Your task to perform on an android device: toggle location history Image 0: 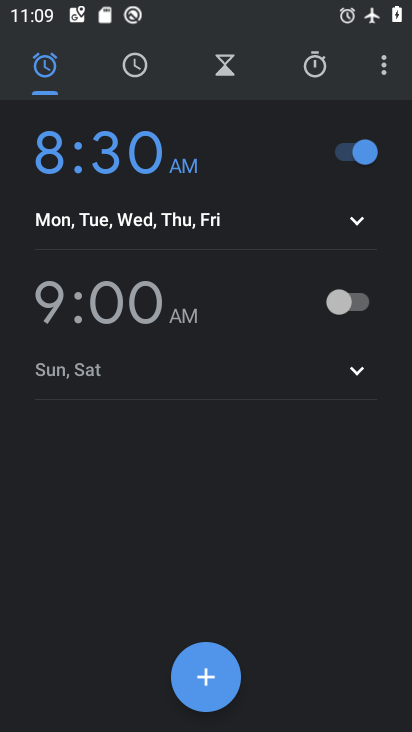
Step 0: press home button
Your task to perform on an android device: toggle location history Image 1: 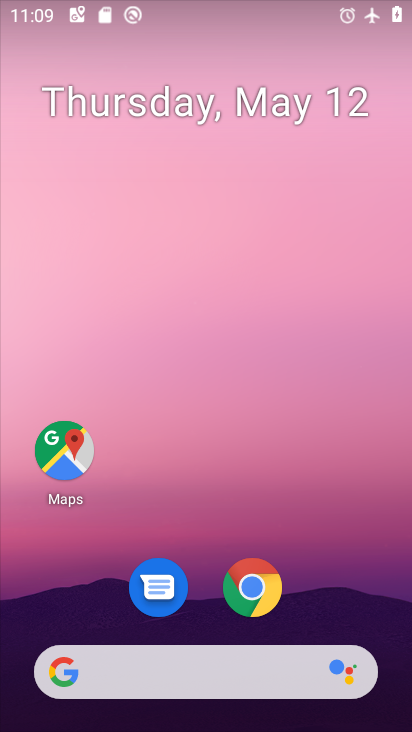
Step 1: drag from (366, 595) to (10, 0)
Your task to perform on an android device: toggle location history Image 2: 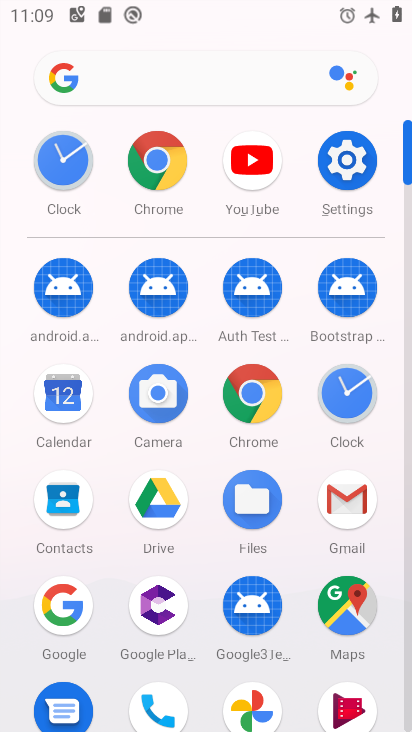
Step 2: click (366, 168)
Your task to perform on an android device: toggle location history Image 3: 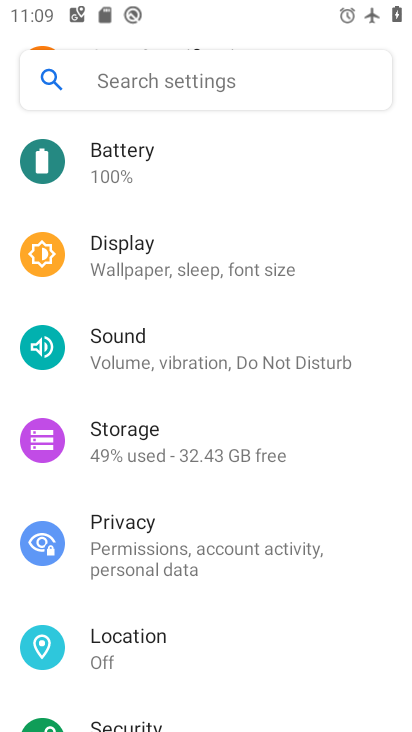
Step 3: click (157, 627)
Your task to perform on an android device: toggle location history Image 4: 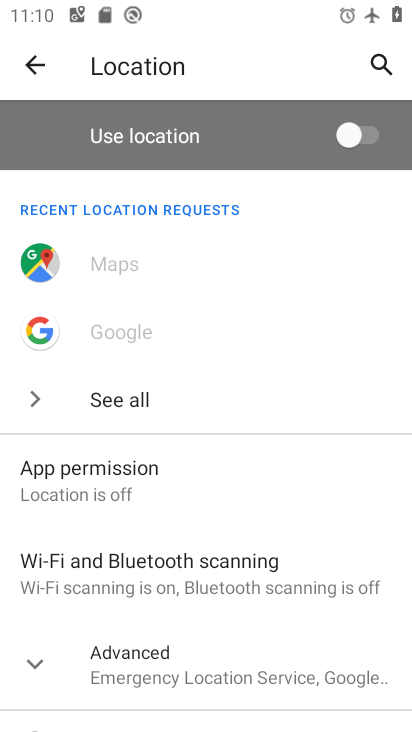
Step 4: drag from (196, 649) to (163, 259)
Your task to perform on an android device: toggle location history Image 5: 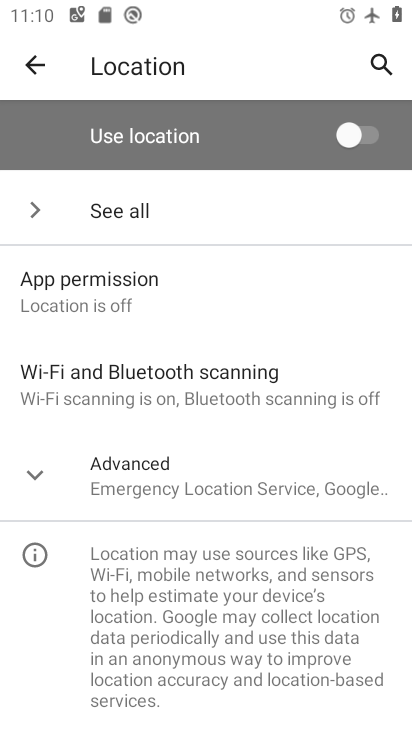
Step 5: click (28, 475)
Your task to perform on an android device: toggle location history Image 6: 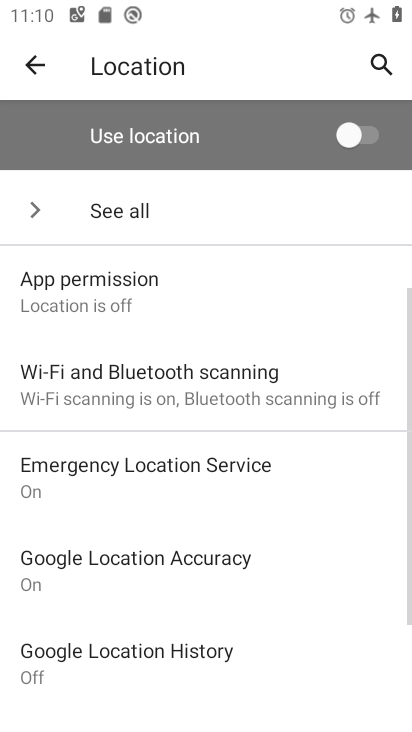
Step 6: click (253, 651)
Your task to perform on an android device: toggle location history Image 7: 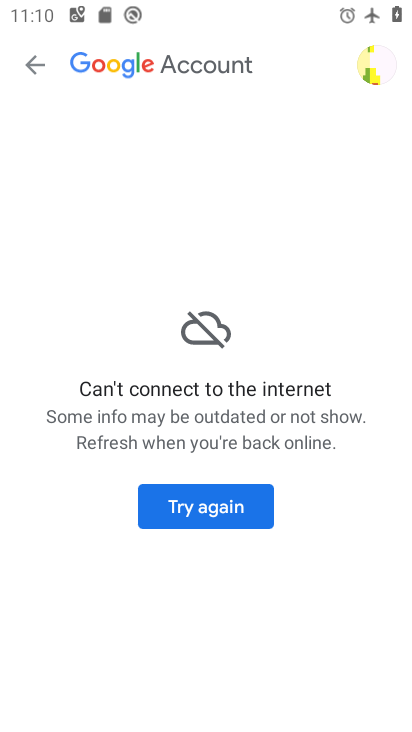
Step 7: task complete